Your task to perform on an android device: turn off data saver in the chrome app Image 0: 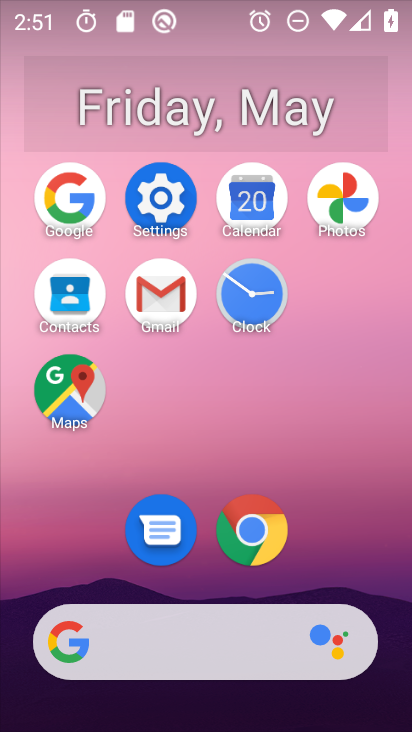
Step 0: click (240, 554)
Your task to perform on an android device: turn off data saver in the chrome app Image 1: 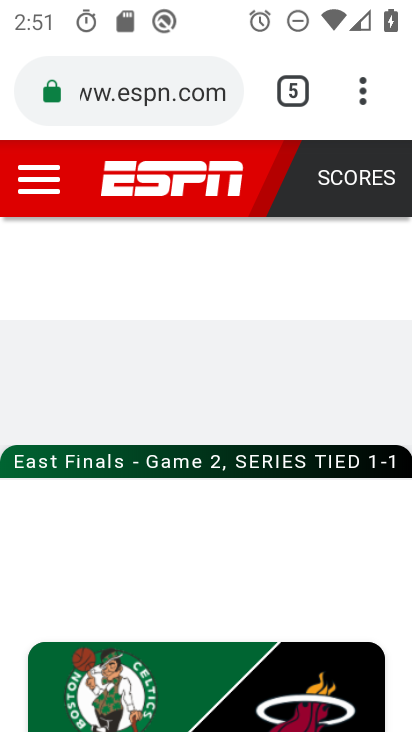
Step 1: click (371, 88)
Your task to perform on an android device: turn off data saver in the chrome app Image 2: 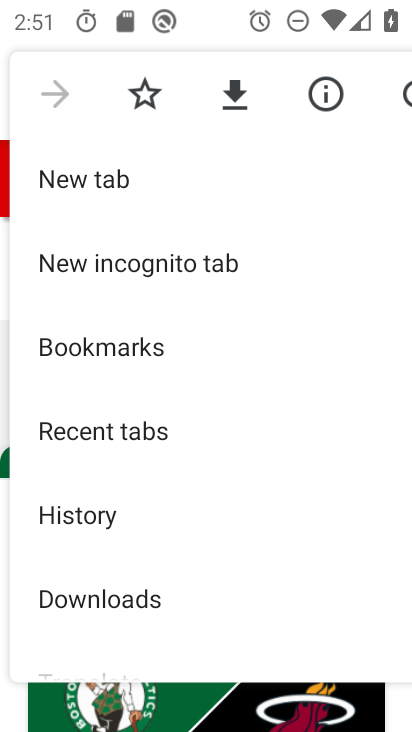
Step 2: drag from (255, 546) to (298, 143)
Your task to perform on an android device: turn off data saver in the chrome app Image 3: 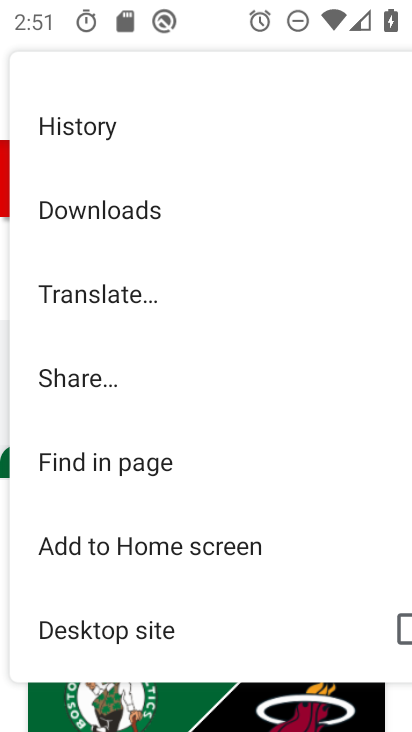
Step 3: drag from (179, 583) to (232, 196)
Your task to perform on an android device: turn off data saver in the chrome app Image 4: 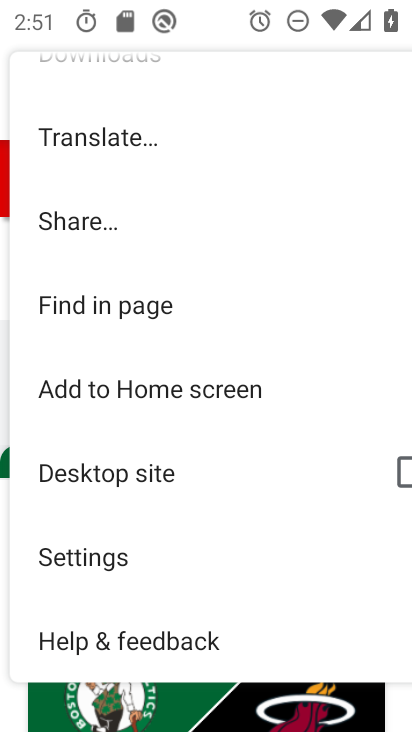
Step 4: click (142, 560)
Your task to perform on an android device: turn off data saver in the chrome app Image 5: 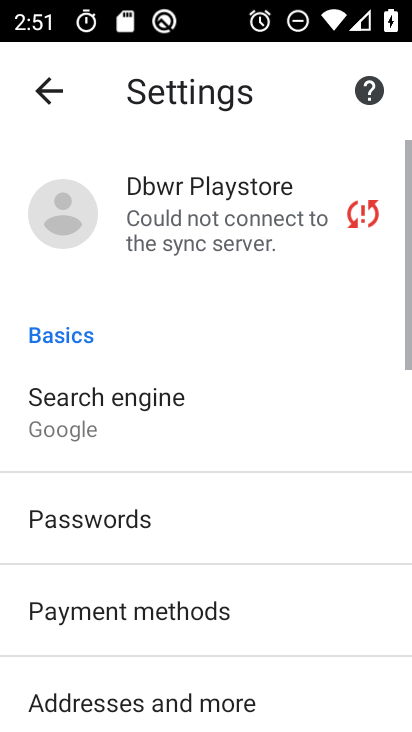
Step 5: drag from (246, 565) to (279, 139)
Your task to perform on an android device: turn off data saver in the chrome app Image 6: 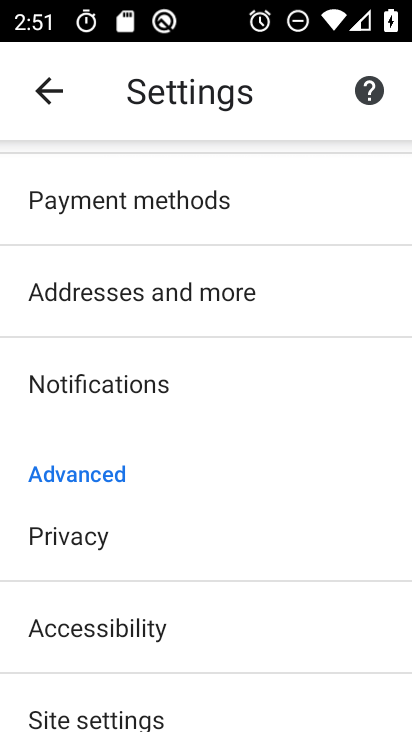
Step 6: drag from (229, 483) to (232, 139)
Your task to perform on an android device: turn off data saver in the chrome app Image 7: 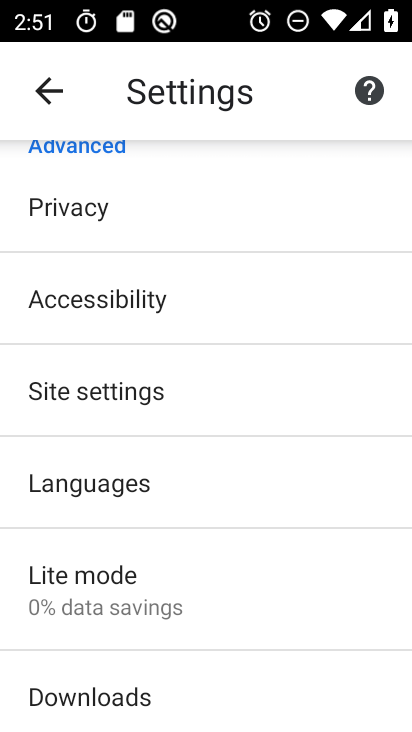
Step 7: drag from (187, 581) to (205, 177)
Your task to perform on an android device: turn off data saver in the chrome app Image 8: 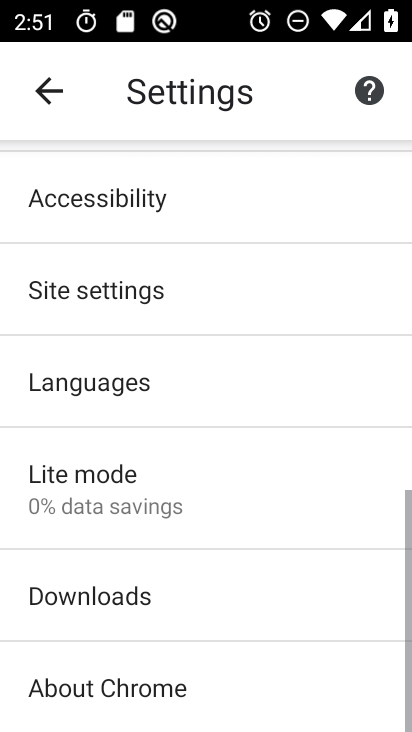
Step 8: click (214, 474)
Your task to perform on an android device: turn off data saver in the chrome app Image 9: 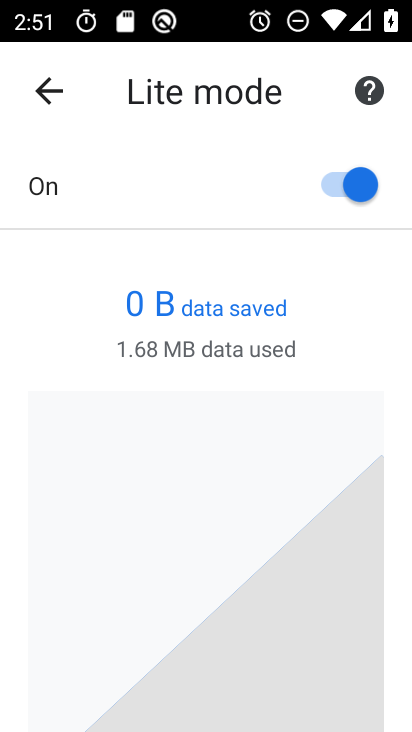
Step 9: click (352, 176)
Your task to perform on an android device: turn off data saver in the chrome app Image 10: 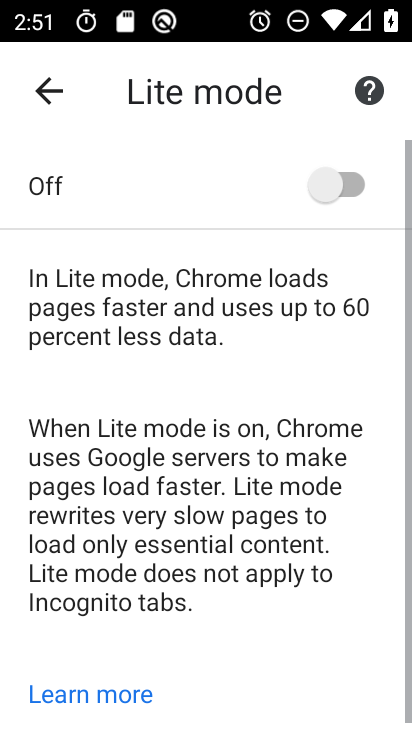
Step 10: task complete